Your task to perform on an android device: Open Amazon Image 0: 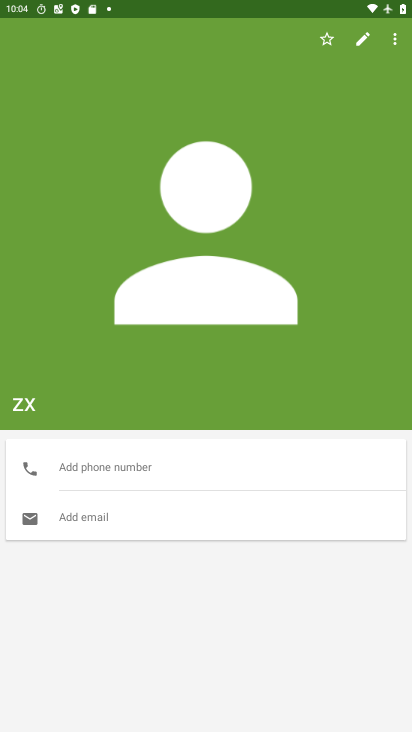
Step 0: press home button
Your task to perform on an android device: Open Amazon Image 1: 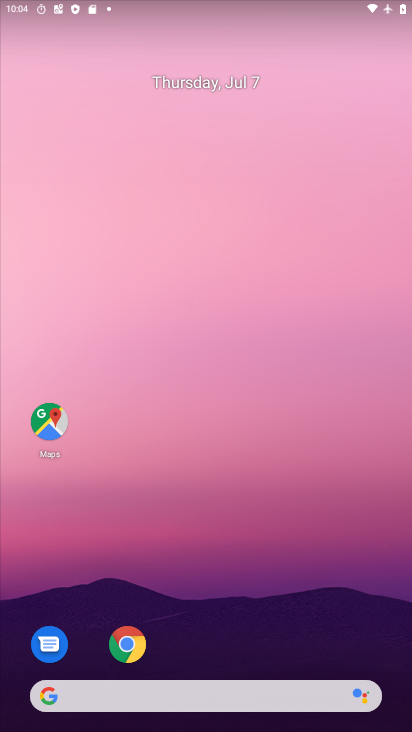
Step 1: drag from (279, 621) to (240, 53)
Your task to perform on an android device: Open Amazon Image 2: 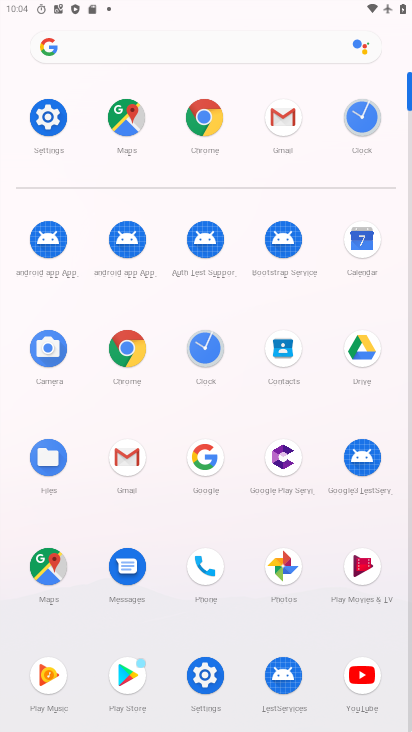
Step 2: click (192, 119)
Your task to perform on an android device: Open Amazon Image 3: 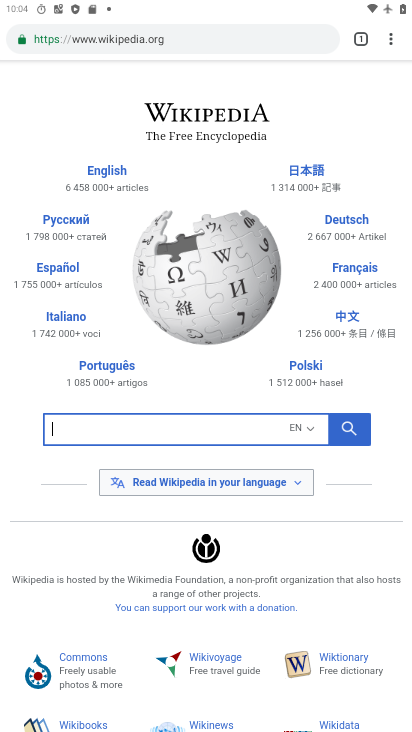
Step 3: click (209, 38)
Your task to perform on an android device: Open Amazon Image 4: 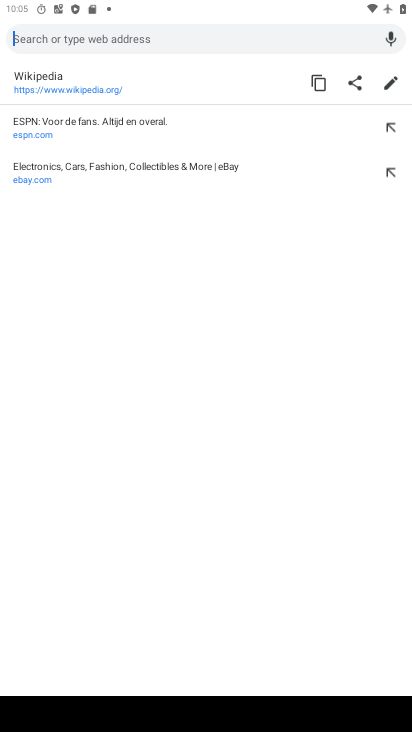
Step 4: type "amazon"
Your task to perform on an android device: Open Amazon Image 5: 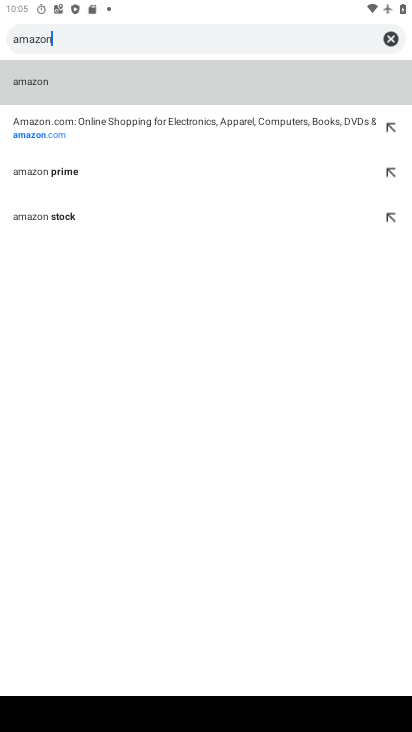
Step 5: click (52, 137)
Your task to perform on an android device: Open Amazon Image 6: 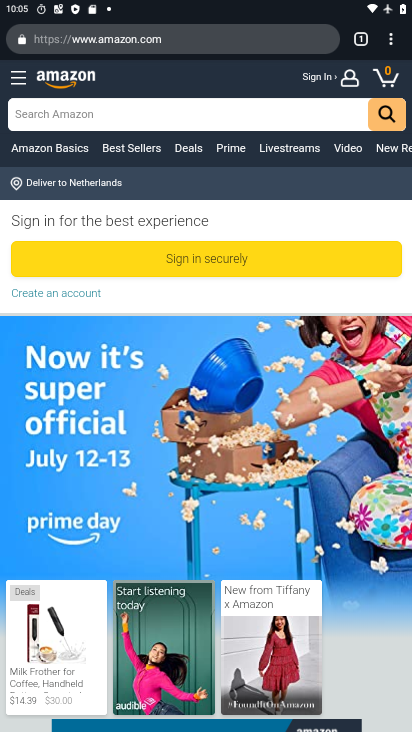
Step 6: task complete